Your task to perform on an android device: add a label to a message in the gmail app Image 0: 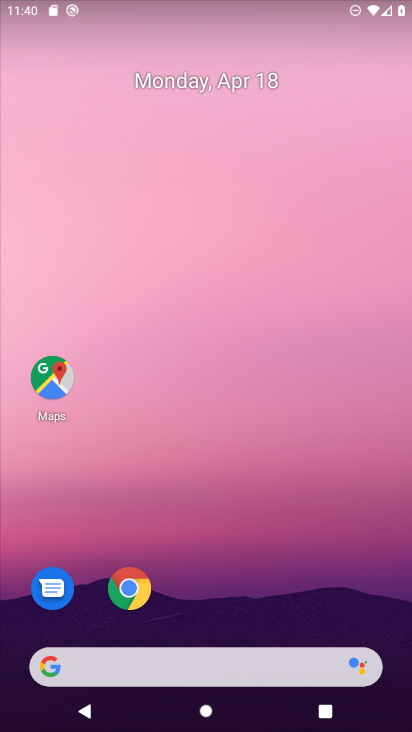
Step 0: drag from (361, 501) to (220, 8)
Your task to perform on an android device: add a label to a message in the gmail app Image 1: 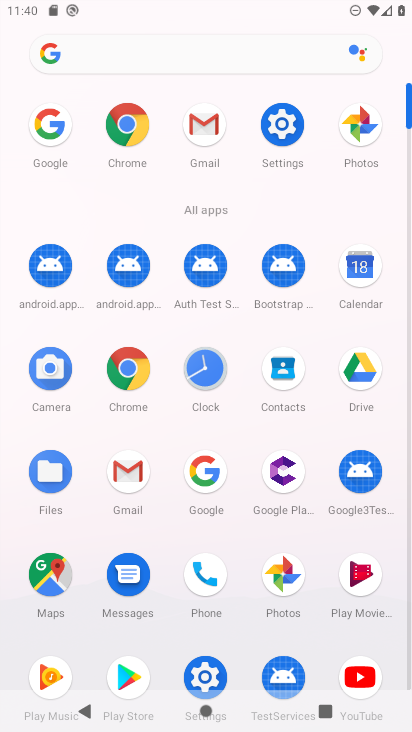
Step 1: click (200, 120)
Your task to perform on an android device: add a label to a message in the gmail app Image 2: 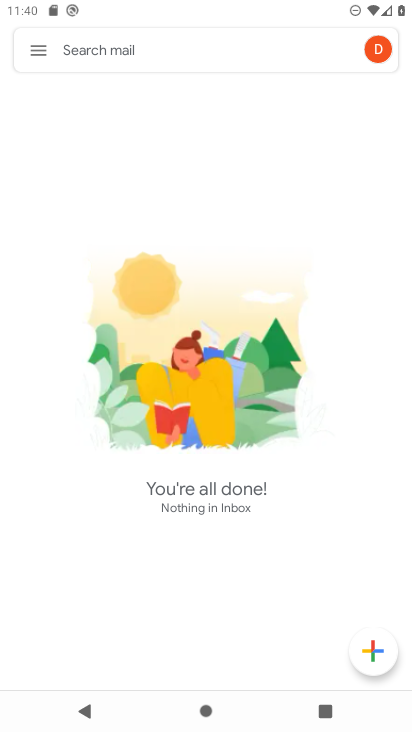
Step 2: click (39, 36)
Your task to perform on an android device: add a label to a message in the gmail app Image 3: 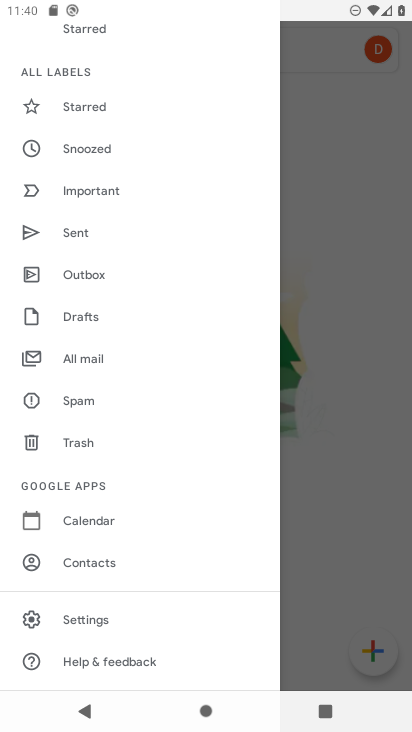
Step 3: drag from (147, 420) to (140, 130)
Your task to perform on an android device: add a label to a message in the gmail app Image 4: 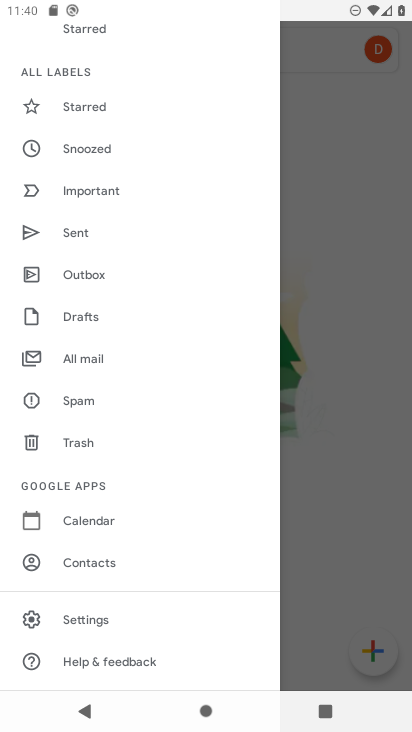
Step 4: click (105, 356)
Your task to perform on an android device: add a label to a message in the gmail app Image 5: 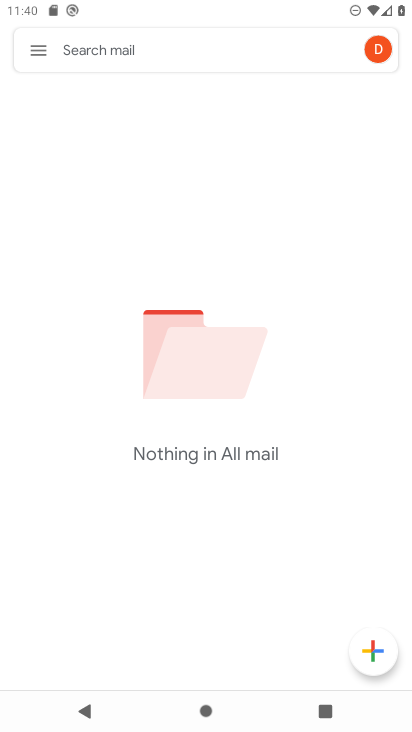
Step 5: click (45, 58)
Your task to perform on an android device: add a label to a message in the gmail app Image 6: 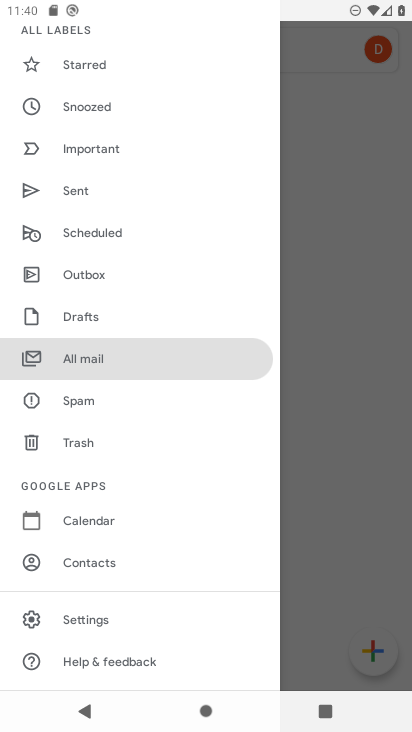
Step 6: click (81, 444)
Your task to perform on an android device: add a label to a message in the gmail app Image 7: 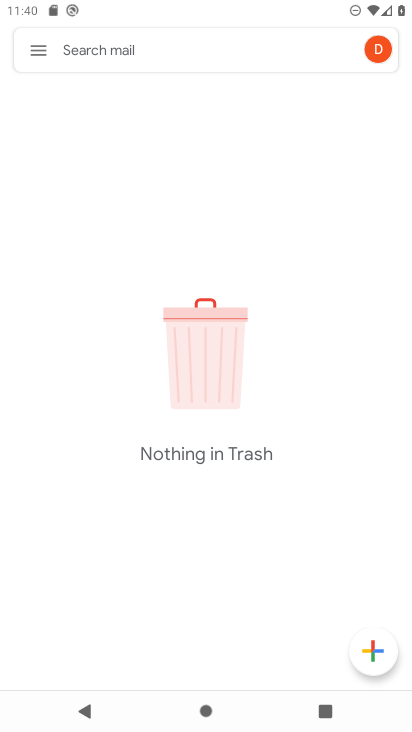
Step 7: click (42, 48)
Your task to perform on an android device: add a label to a message in the gmail app Image 8: 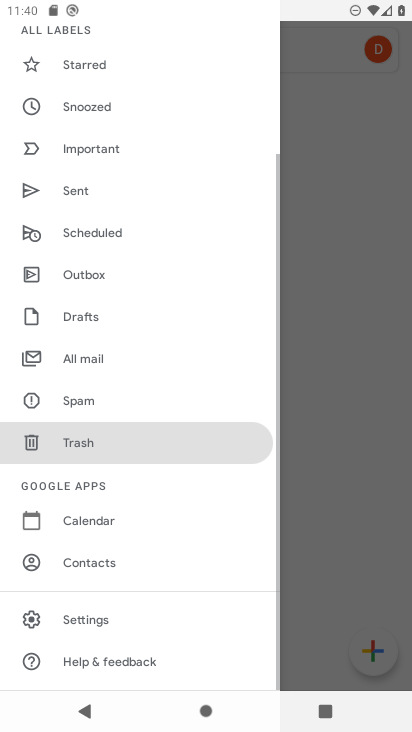
Step 8: click (83, 396)
Your task to perform on an android device: add a label to a message in the gmail app Image 9: 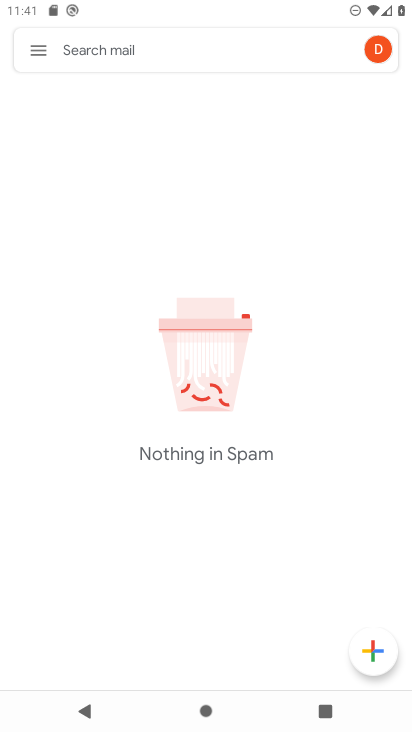
Step 9: click (38, 47)
Your task to perform on an android device: add a label to a message in the gmail app Image 10: 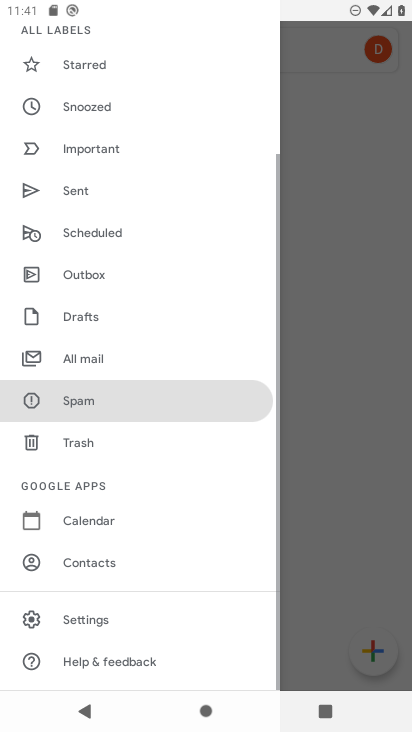
Step 10: drag from (134, 128) to (160, 548)
Your task to perform on an android device: add a label to a message in the gmail app Image 11: 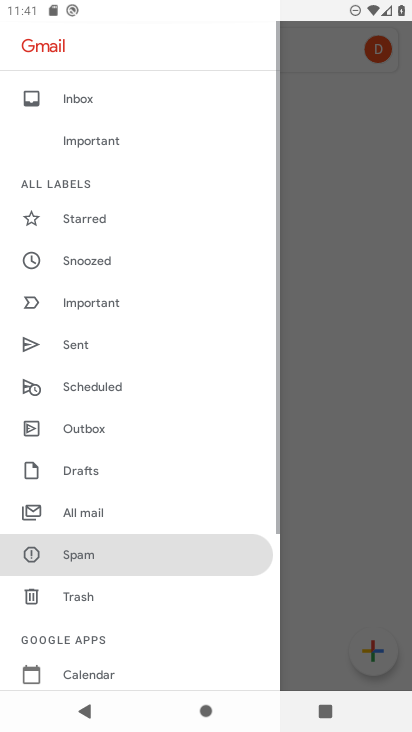
Step 11: click (103, 104)
Your task to perform on an android device: add a label to a message in the gmail app Image 12: 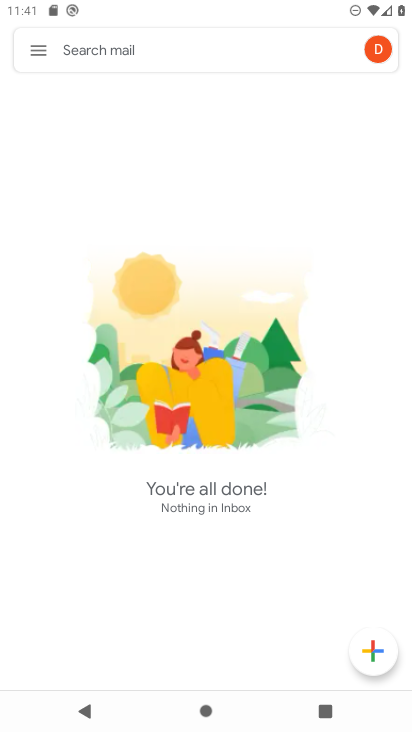
Step 12: task complete